Your task to perform on an android device: change timer sound Image 0: 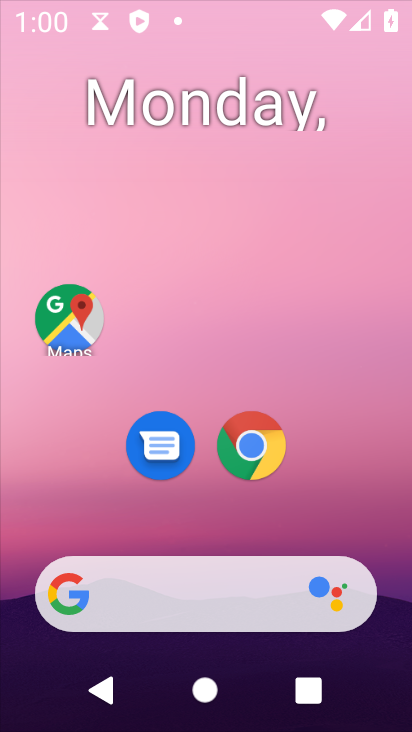
Step 0: drag from (305, 684) to (211, 107)
Your task to perform on an android device: change timer sound Image 1: 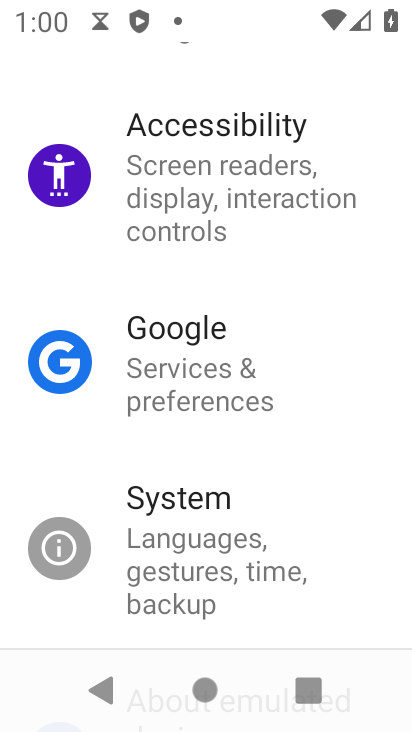
Step 1: press back button
Your task to perform on an android device: change timer sound Image 2: 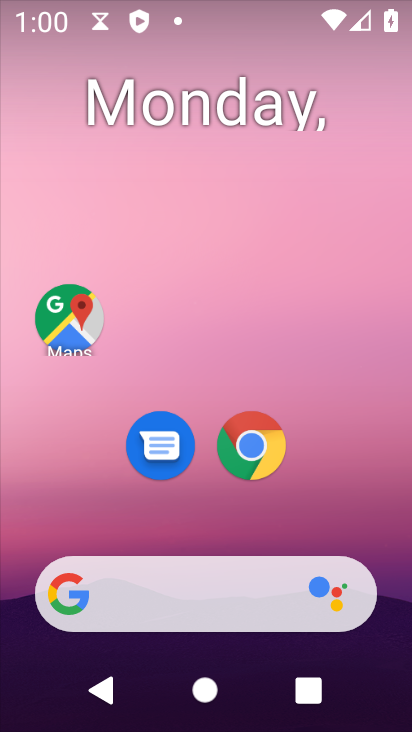
Step 2: drag from (346, 651) to (207, 3)
Your task to perform on an android device: change timer sound Image 3: 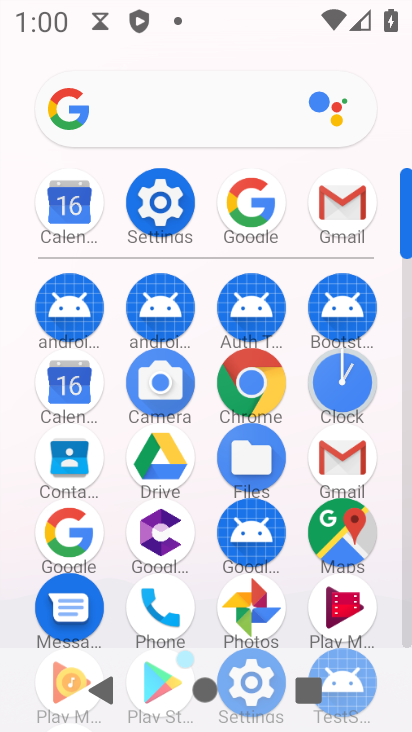
Step 3: click (340, 400)
Your task to perform on an android device: change timer sound Image 4: 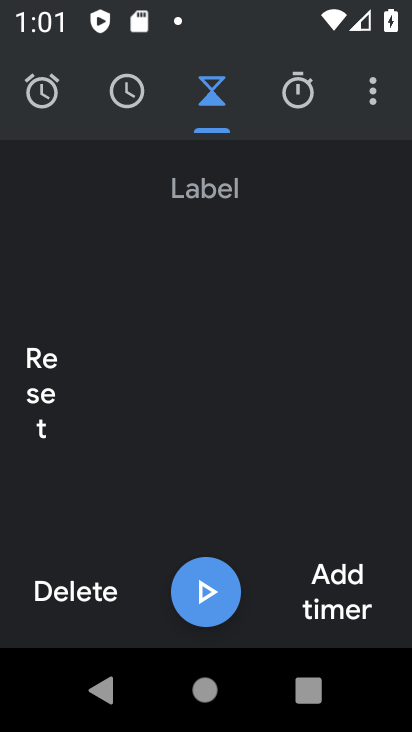
Step 4: click (369, 101)
Your task to perform on an android device: change timer sound Image 5: 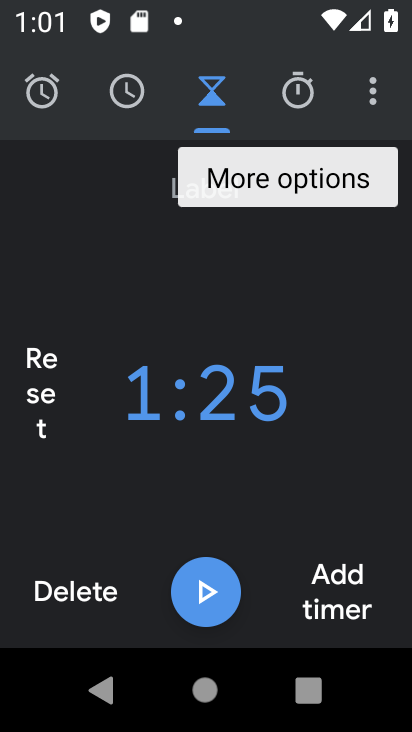
Step 5: click (372, 104)
Your task to perform on an android device: change timer sound Image 6: 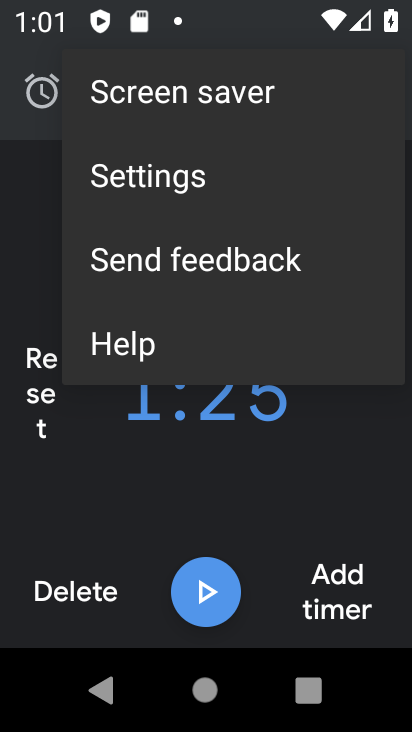
Step 6: click (146, 177)
Your task to perform on an android device: change timer sound Image 7: 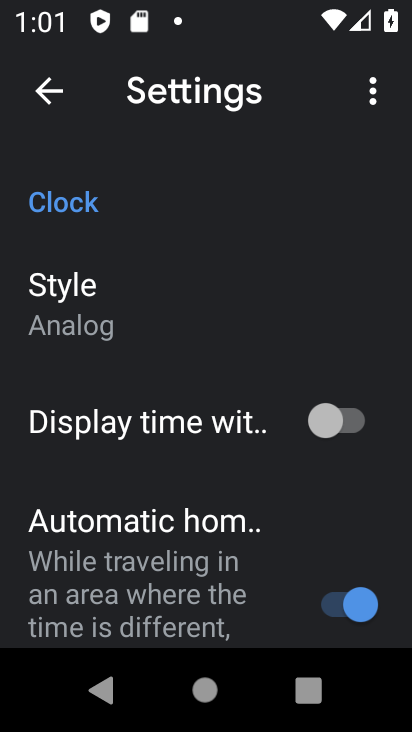
Step 7: drag from (284, 517) to (241, 136)
Your task to perform on an android device: change timer sound Image 8: 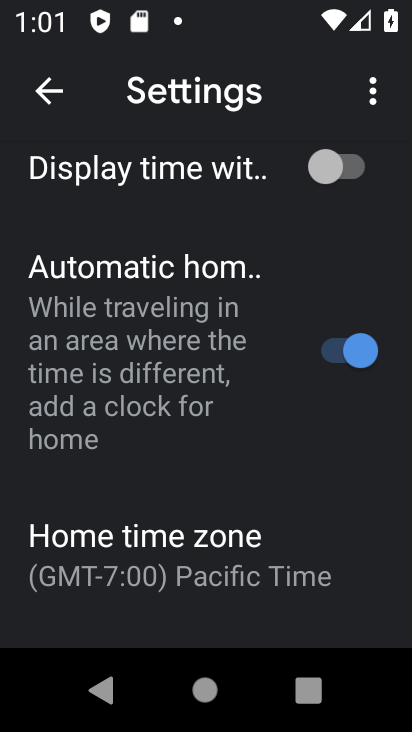
Step 8: drag from (223, 449) to (219, 136)
Your task to perform on an android device: change timer sound Image 9: 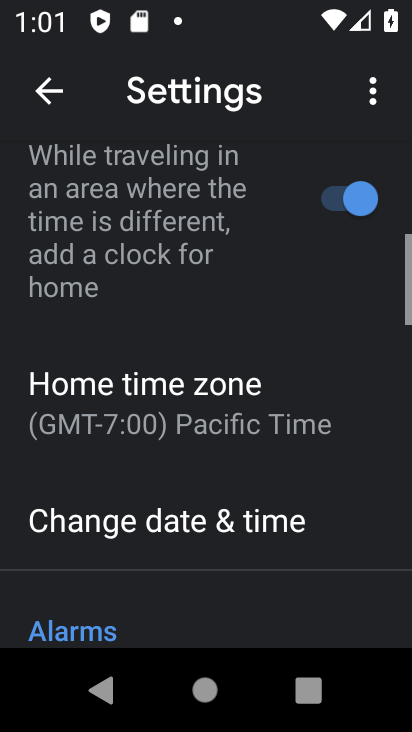
Step 9: drag from (248, 363) to (267, 71)
Your task to perform on an android device: change timer sound Image 10: 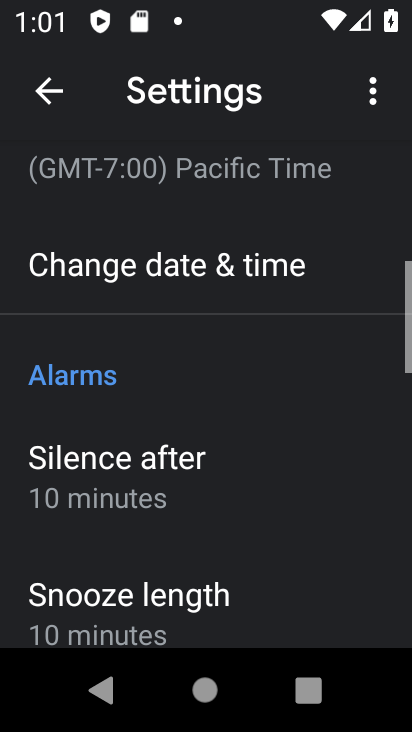
Step 10: drag from (181, 488) to (224, 182)
Your task to perform on an android device: change timer sound Image 11: 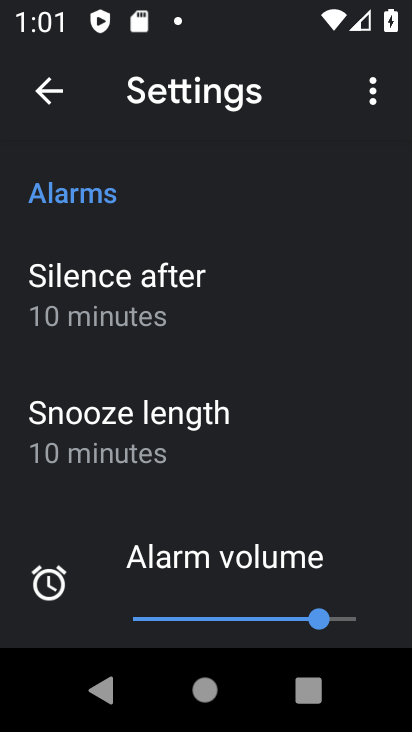
Step 11: drag from (136, 228) to (203, 505)
Your task to perform on an android device: change timer sound Image 12: 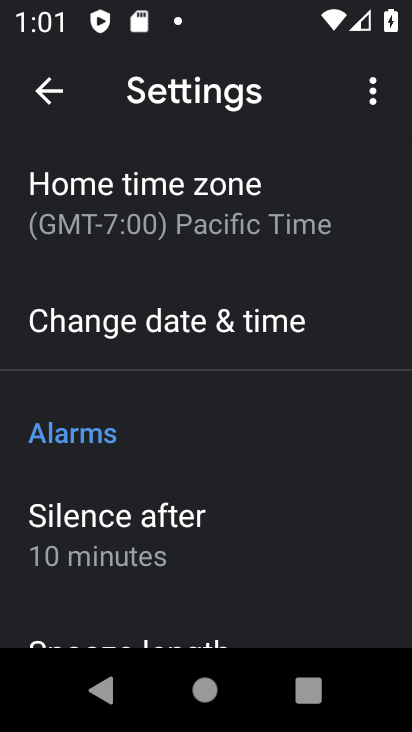
Step 12: drag from (145, 447) to (157, 72)
Your task to perform on an android device: change timer sound Image 13: 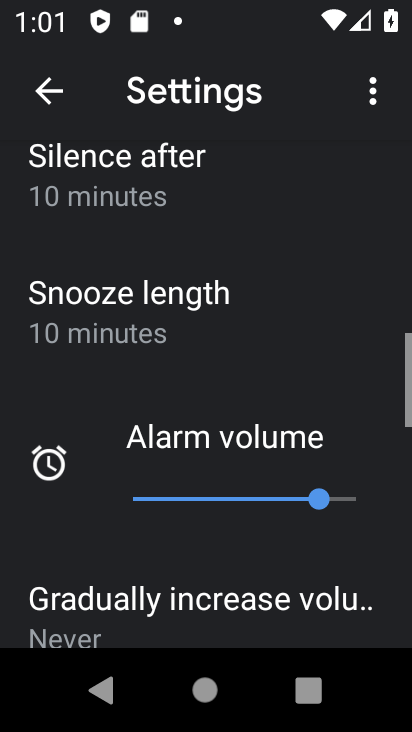
Step 13: drag from (209, 338) to (195, 24)
Your task to perform on an android device: change timer sound Image 14: 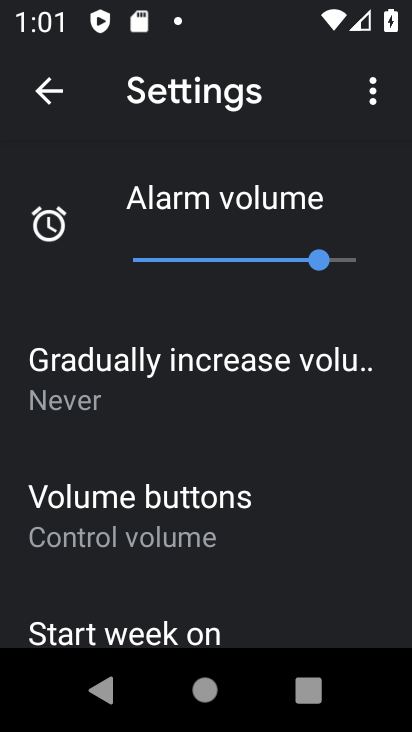
Step 14: drag from (105, 540) to (104, 140)
Your task to perform on an android device: change timer sound Image 15: 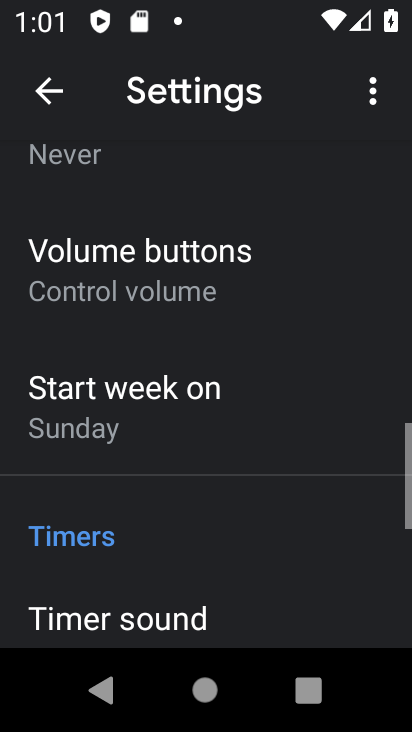
Step 15: click (279, 55)
Your task to perform on an android device: change timer sound Image 16: 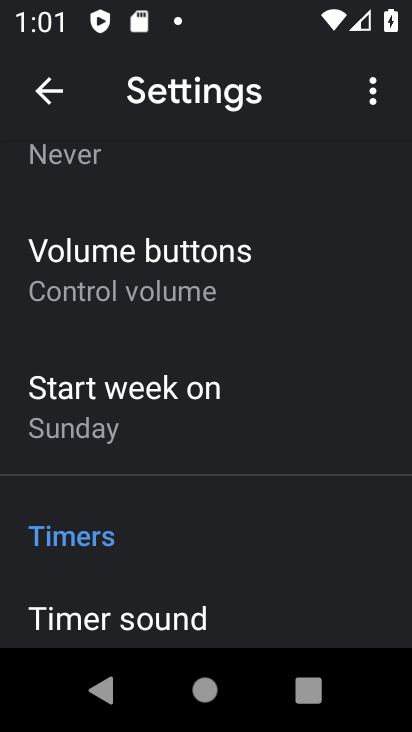
Step 16: drag from (182, 451) to (269, 81)
Your task to perform on an android device: change timer sound Image 17: 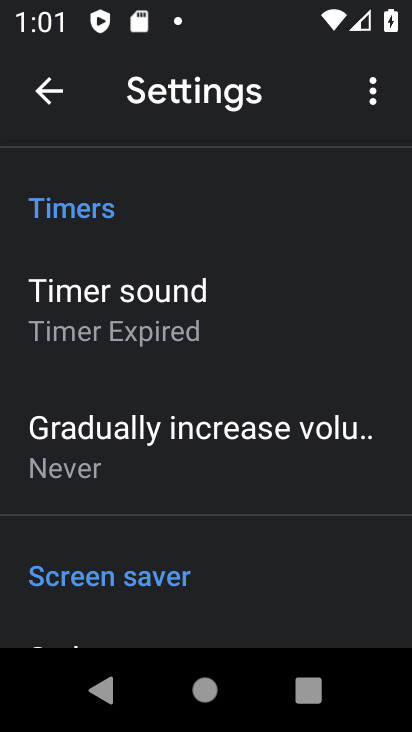
Step 17: click (110, 316)
Your task to perform on an android device: change timer sound Image 18: 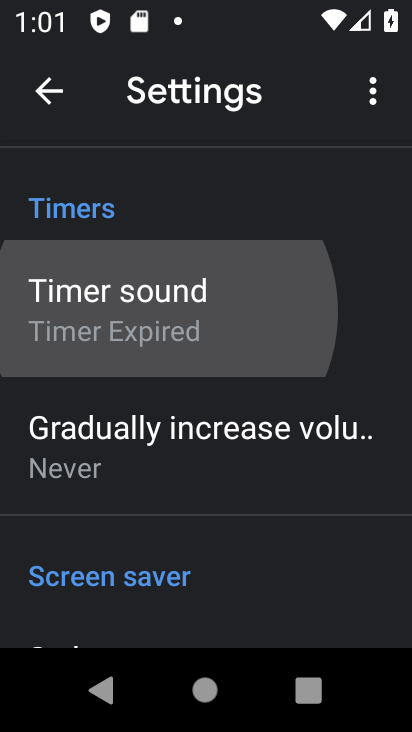
Step 18: click (110, 318)
Your task to perform on an android device: change timer sound Image 19: 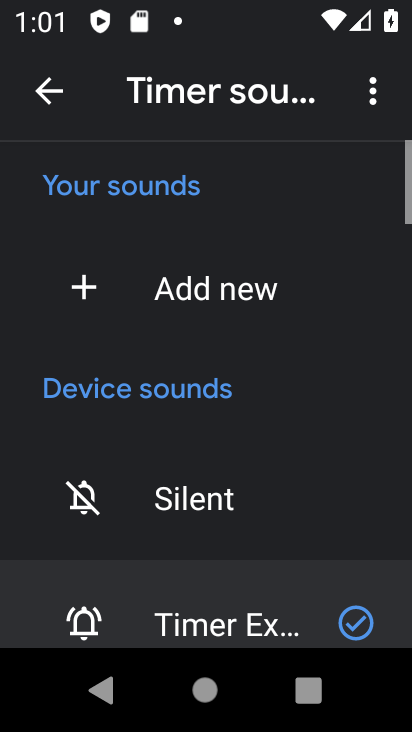
Step 19: click (115, 324)
Your task to perform on an android device: change timer sound Image 20: 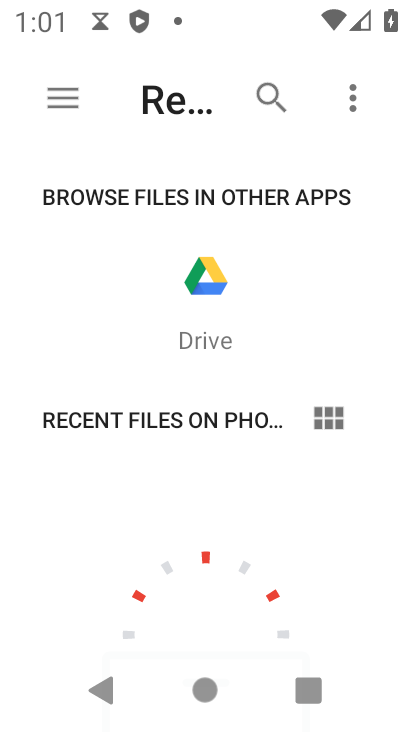
Step 20: press back button
Your task to perform on an android device: change timer sound Image 21: 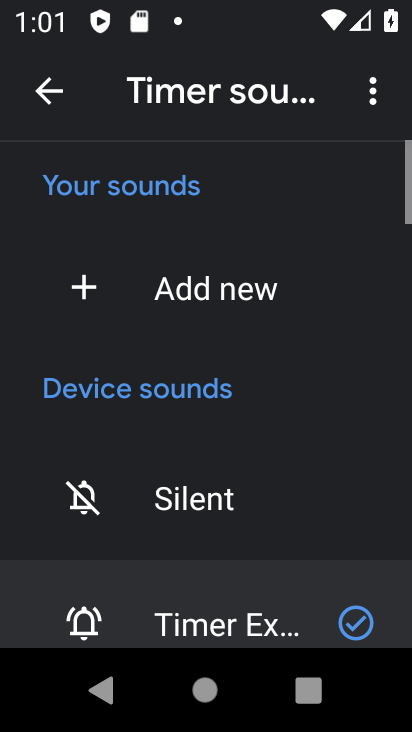
Step 21: drag from (177, 483) to (200, 91)
Your task to perform on an android device: change timer sound Image 22: 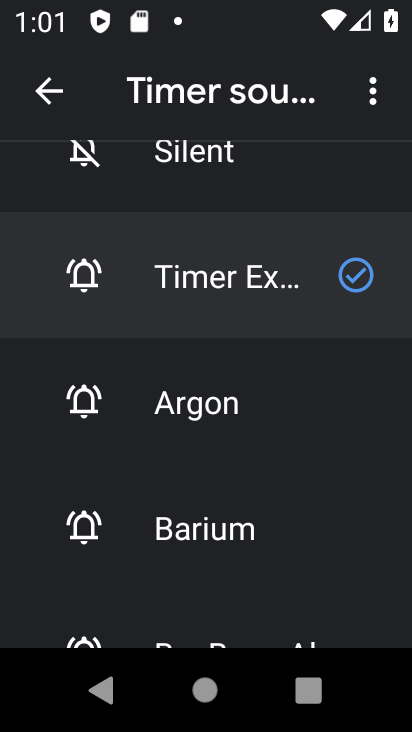
Step 22: click (89, 516)
Your task to perform on an android device: change timer sound Image 23: 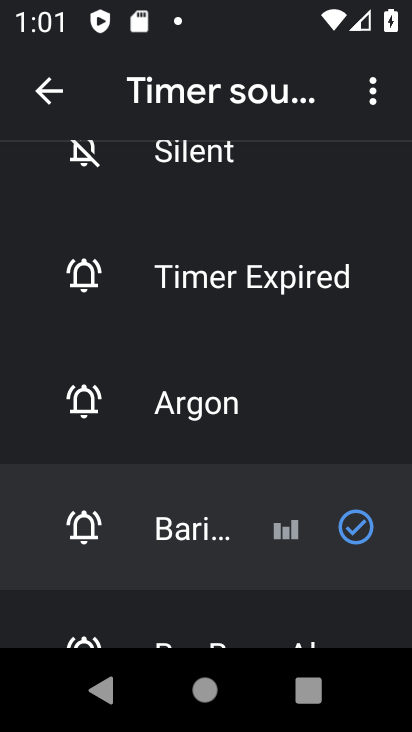
Step 23: task complete